Your task to perform on an android device: toggle pop-ups in chrome Image 0: 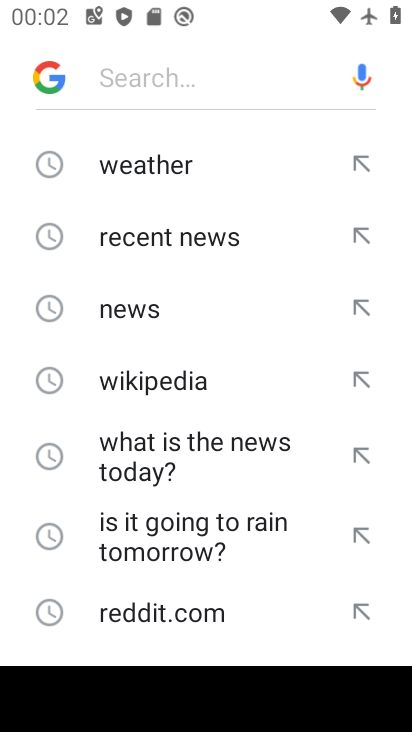
Step 0: press home button
Your task to perform on an android device: toggle pop-ups in chrome Image 1: 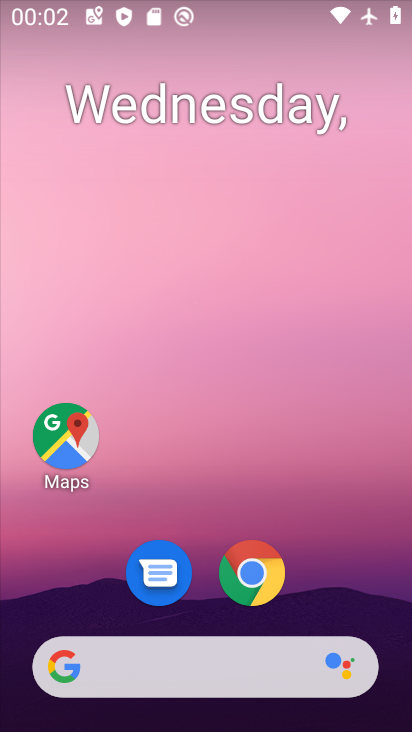
Step 1: click (258, 560)
Your task to perform on an android device: toggle pop-ups in chrome Image 2: 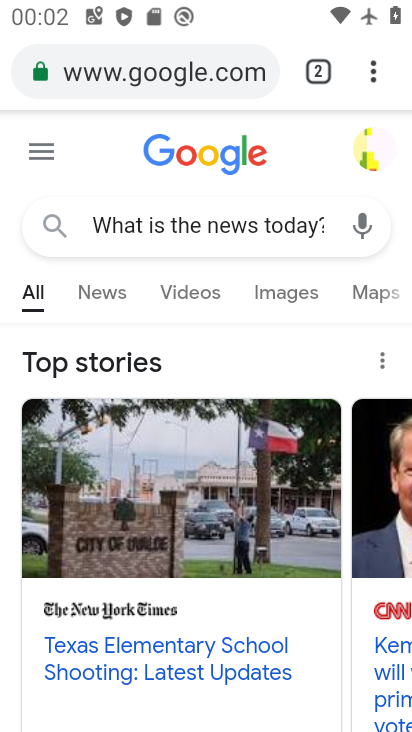
Step 2: click (385, 69)
Your task to perform on an android device: toggle pop-ups in chrome Image 3: 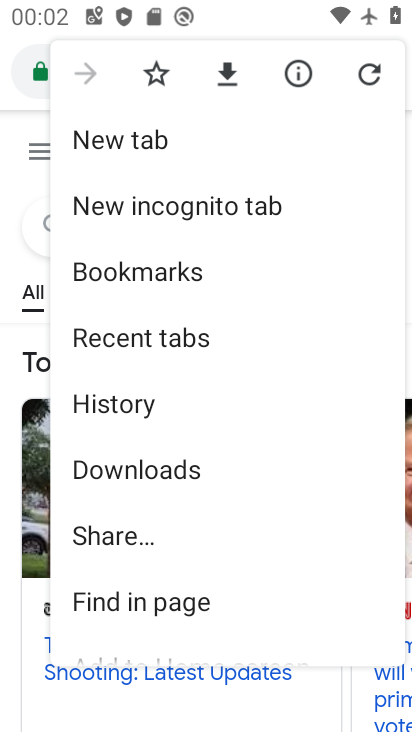
Step 3: drag from (196, 471) to (244, 247)
Your task to perform on an android device: toggle pop-ups in chrome Image 4: 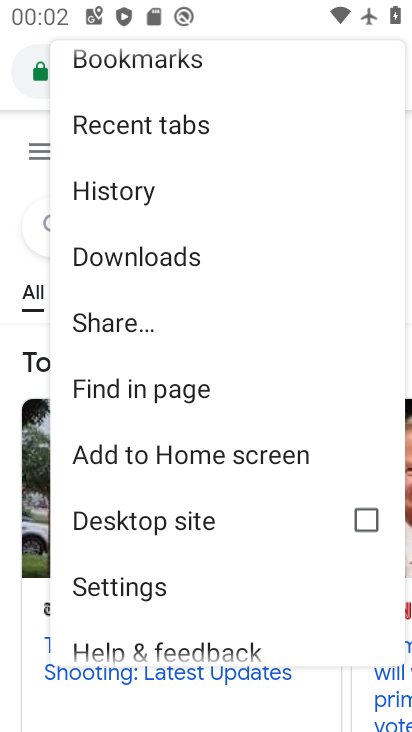
Step 4: click (152, 576)
Your task to perform on an android device: toggle pop-ups in chrome Image 5: 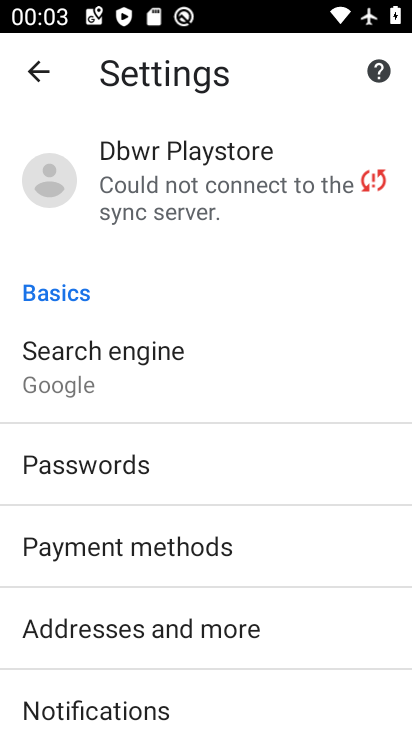
Step 5: drag from (222, 621) to (224, 251)
Your task to perform on an android device: toggle pop-ups in chrome Image 6: 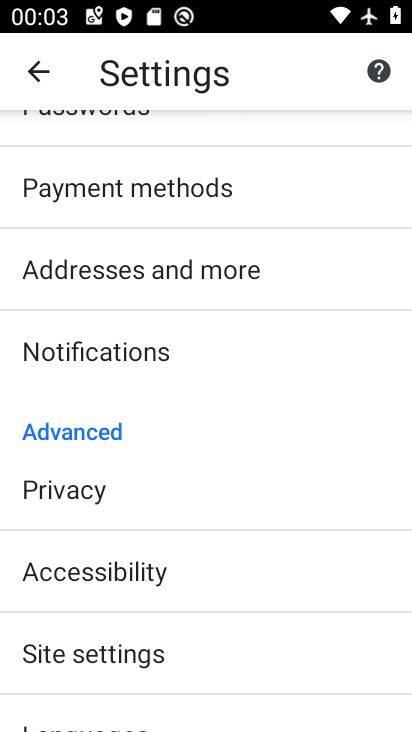
Step 6: drag from (264, 568) to (267, 218)
Your task to perform on an android device: toggle pop-ups in chrome Image 7: 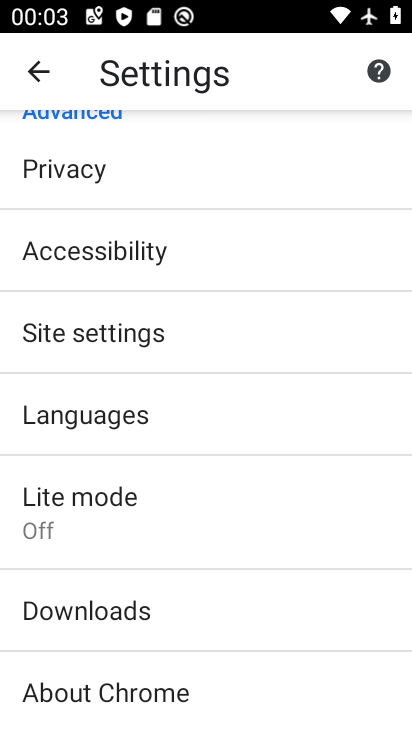
Step 7: click (132, 342)
Your task to perform on an android device: toggle pop-ups in chrome Image 8: 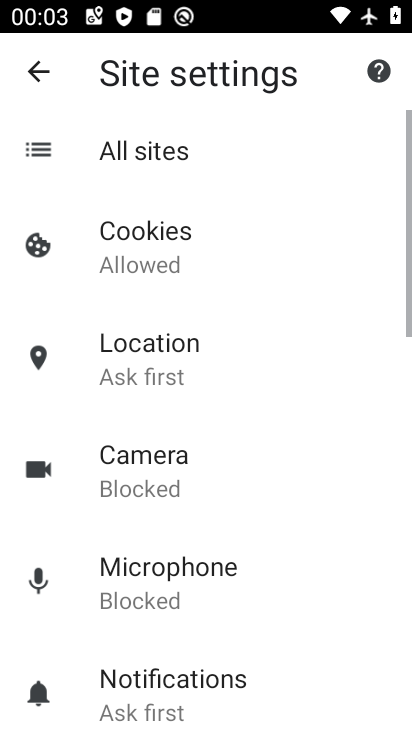
Step 8: drag from (268, 654) to (304, 262)
Your task to perform on an android device: toggle pop-ups in chrome Image 9: 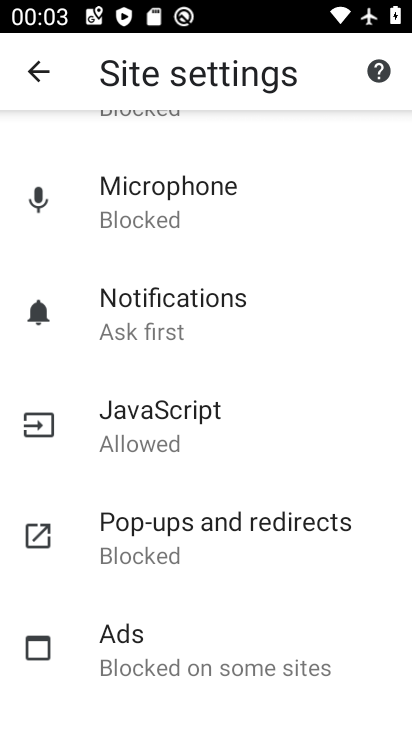
Step 9: click (206, 542)
Your task to perform on an android device: toggle pop-ups in chrome Image 10: 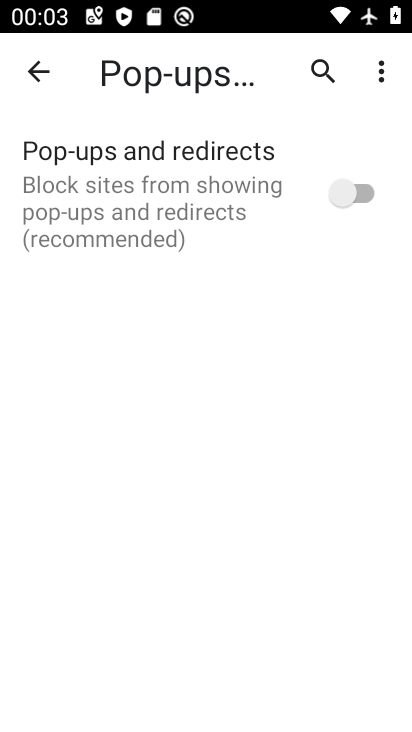
Step 10: click (359, 200)
Your task to perform on an android device: toggle pop-ups in chrome Image 11: 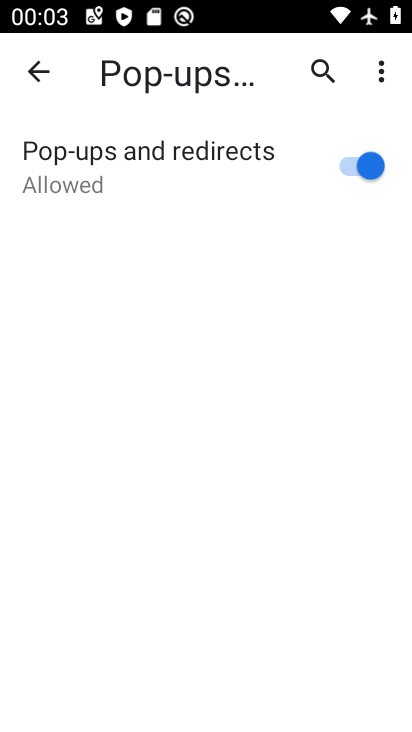
Step 11: task complete